Your task to perform on an android device: check data usage Image 0: 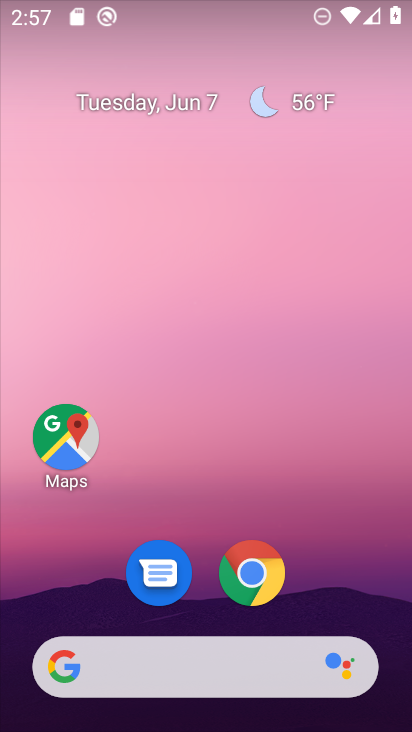
Step 0: drag from (348, 586) to (355, 38)
Your task to perform on an android device: check data usage Image 1: 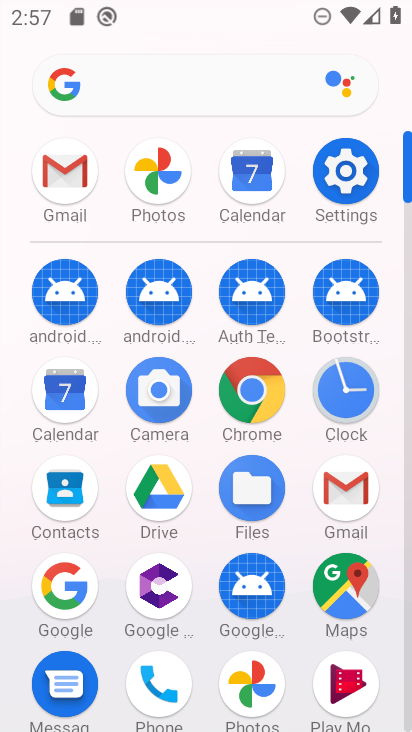
Step 1: click (342, 180)
Your task to perform on an android device: check data usage Image 2: 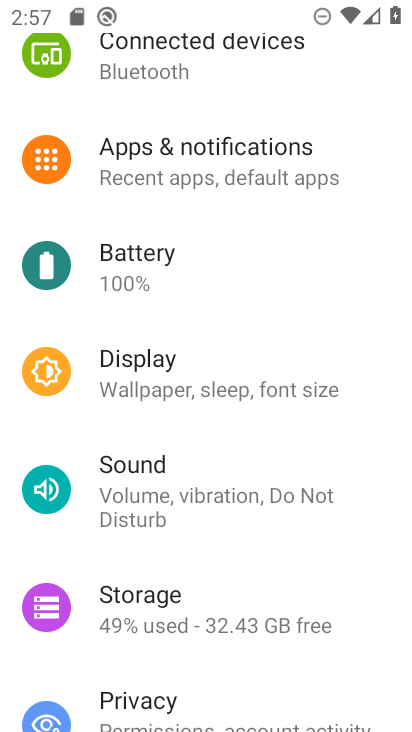
Step 2: drag from (242, 216) to (262, 636)
Your task to perform on an android device: check data usage Image 3: 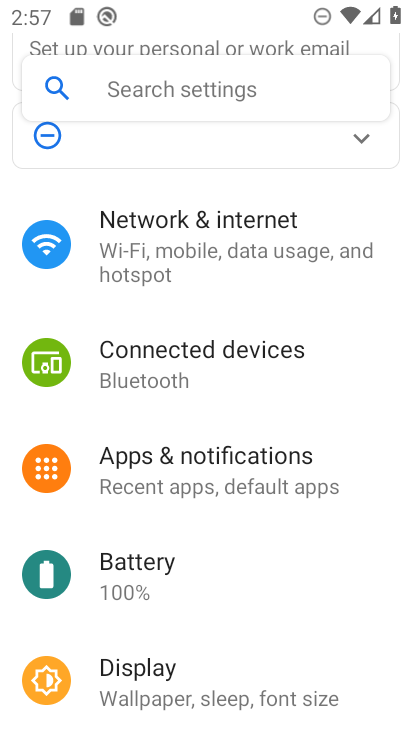
Step 3: click (287, 259)
Your task to perform on an android device: check data usage Image 4: 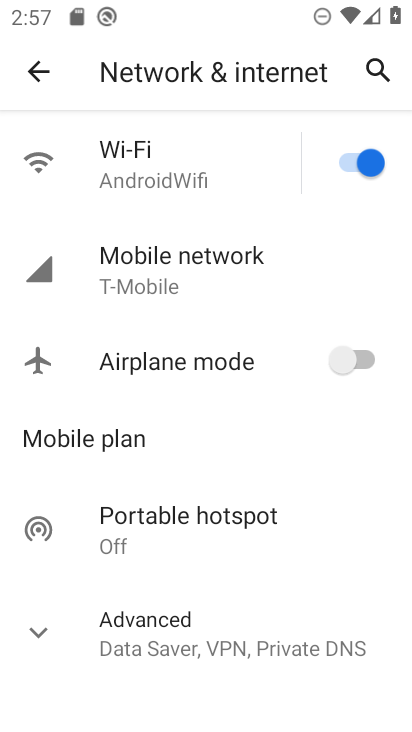
Step 4: click (143, 278)
Your task to perform on an android device: check data usage Image 5: 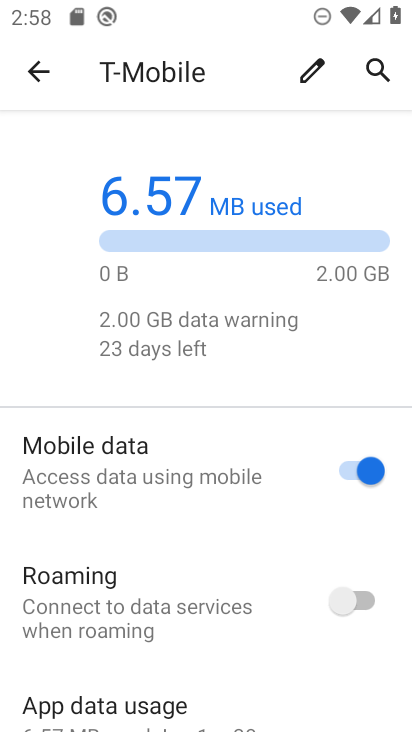
Step 5: drag from (191, 634) to (164, 165)
Your task to perform on an android device: check data usage Image 6: 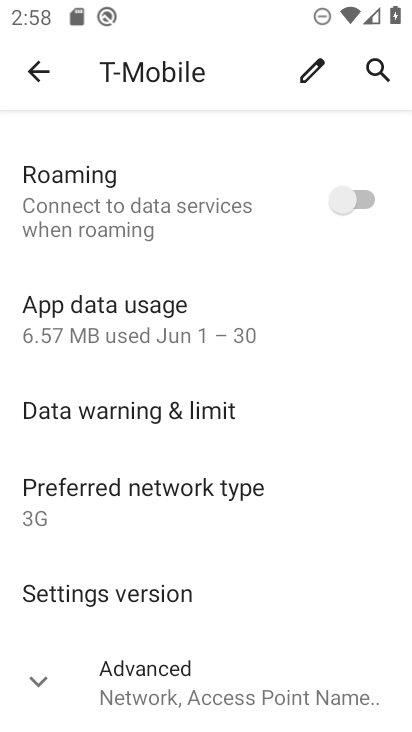
Step 6: click (143, 337)
Your task to perform on an android device: check data usage Image 7: 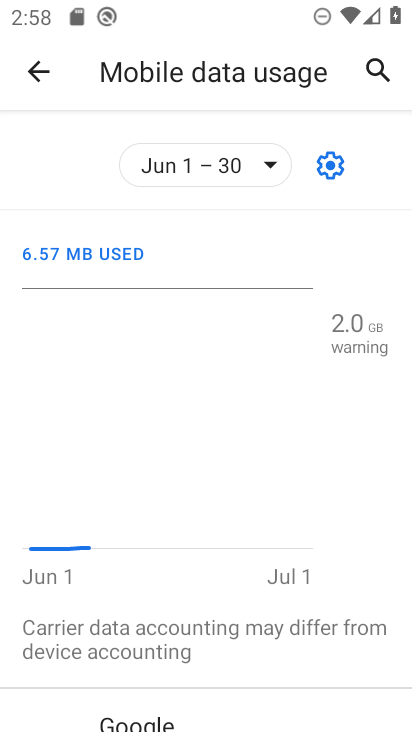
Step 7: task complete